Your task to perform on an android device: find snoozed emails in the gmail app Image 0: 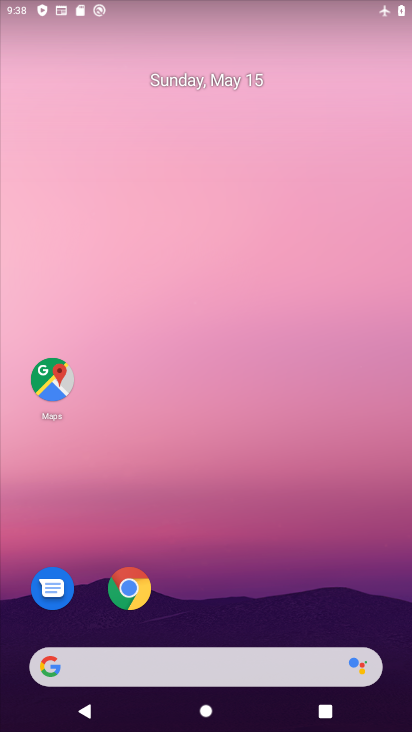
Step 0: drag from (251, 629) to (235, 0)
Your task to perform on an android device: find snoozed emails in the gmail app Image 1: 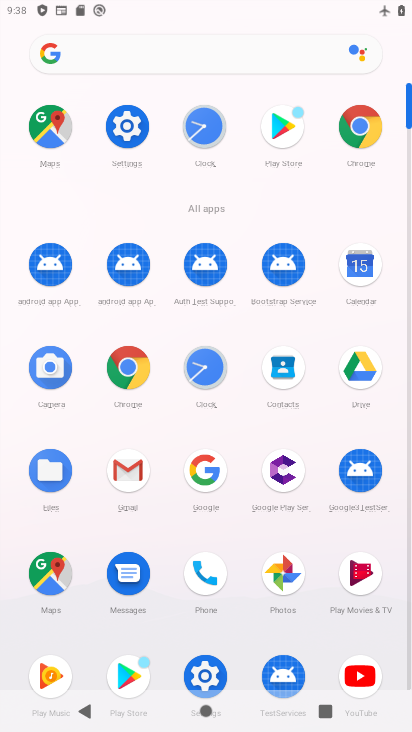
Step 1: click (121, 464)
Your task to perform on an android device: find snoozed emails in the gmail app Image 2: 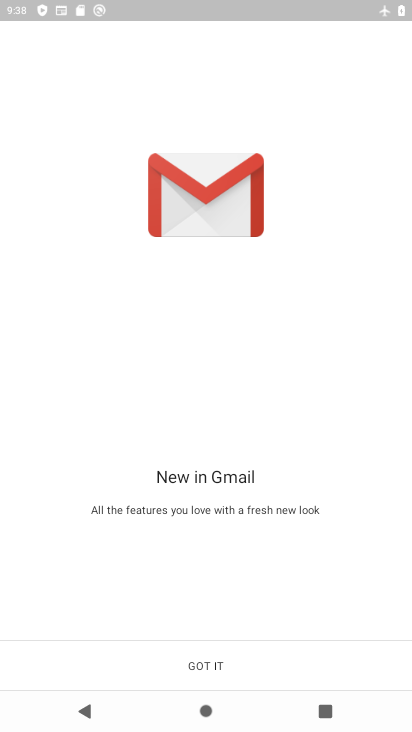
Step 2: click (217, 663)
Your task to perform on an android device: find snoozed emails in the gmail app Image 3: 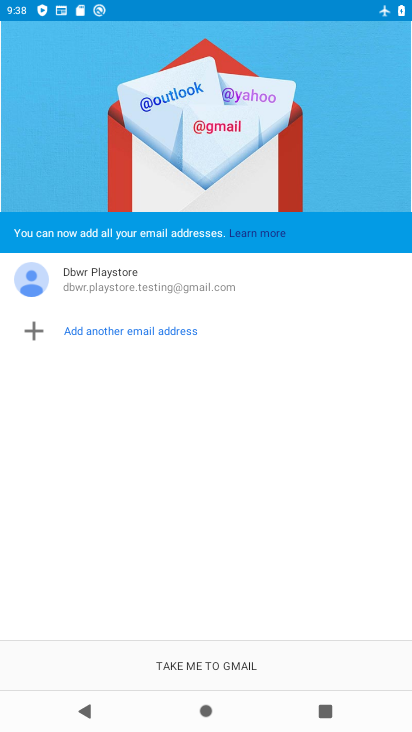
Step 3: click (253, 660)
Your task to perform on an android device: find snoozed emails in the gmail app Image 4: 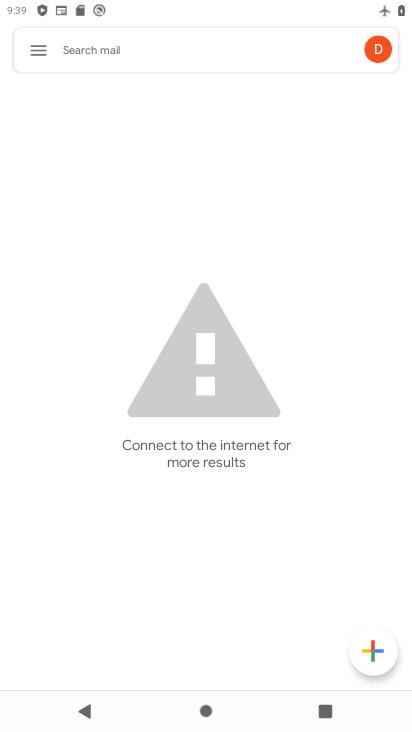
Step 4: click (33, 51)
Your task to perform on an android device: find snoozed emails in the gmail app Image 5: 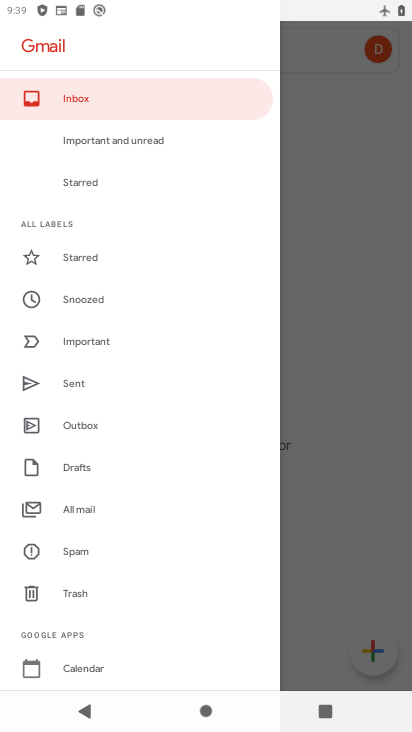
Step 5: click (100, 298)
Your task to perform on an android device: find snoozed emails in the gmail app Image 6: 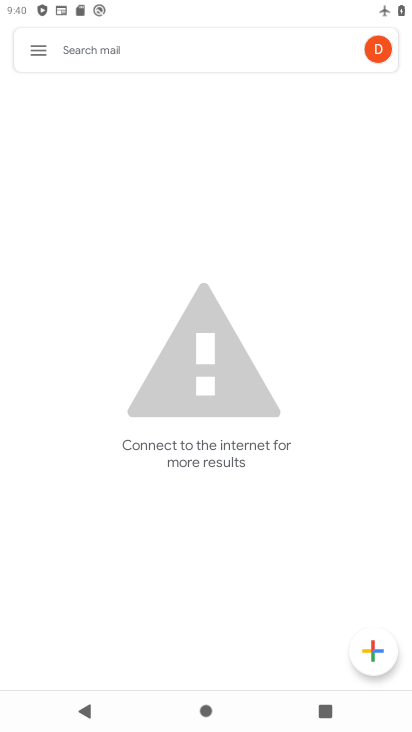
Step 6: click (45, 55)
Your task to perform on an android device: find snoozed emails in the gmail app Image 7: 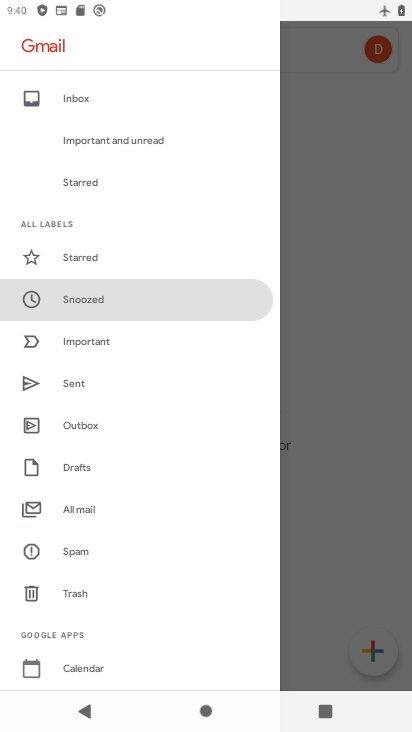
Step 7: click (370, 171)
Your task to perform on an android device: find snoozed emails in the gmail app Image 8: 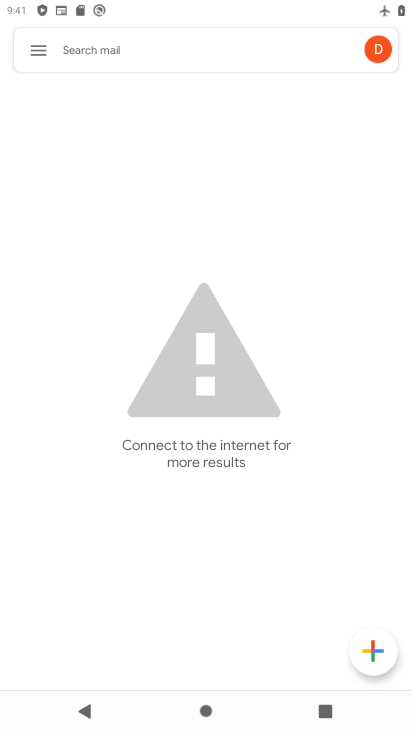
Step 8: task complete